Your task to perform on an android device: visit the assistant section in the google photos Image 0: 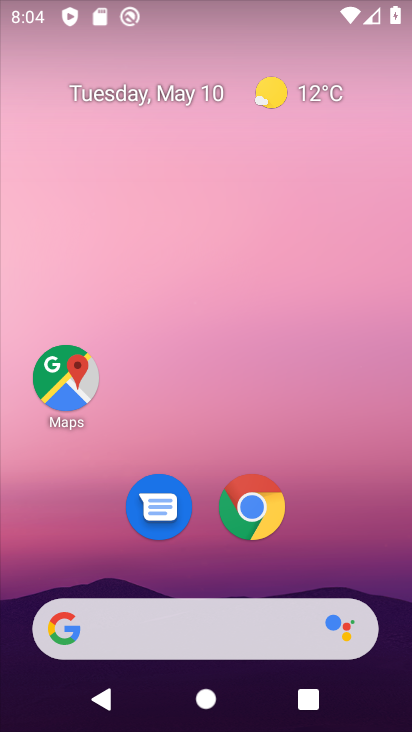
Step 0: drag from (126, 588) to (247, 132)
Your task to perform on an android device: visit the assistant section in the google photos Image 1: 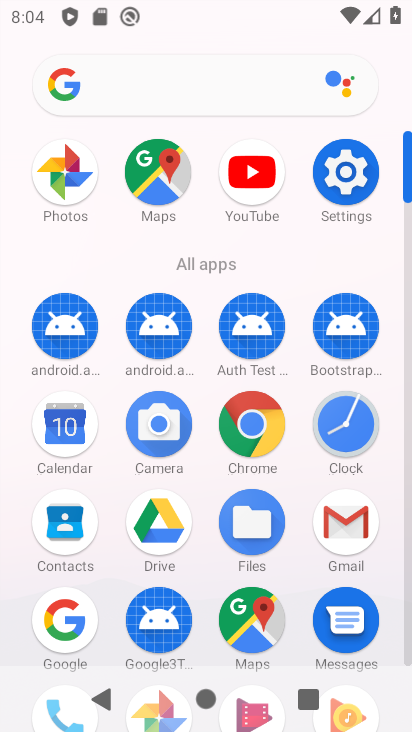
Step 1: drag from (180, 635) to (228, 434)
Your task to perform on an android device: visit the assistant section in the google photos Image 2: 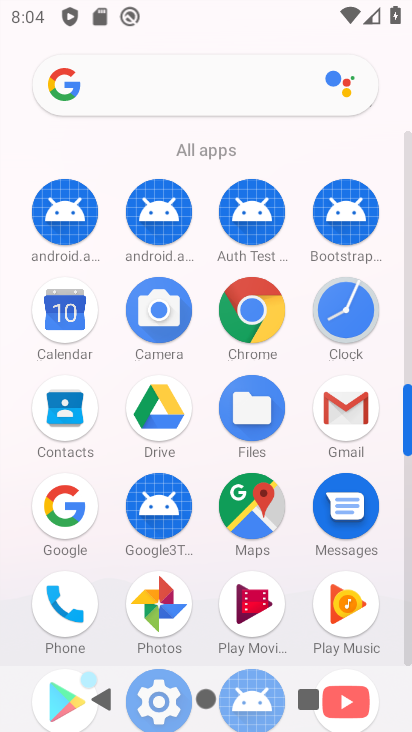
Step 2: drag from (191, 628) to (258, 395)
Your task to perform on an android device: visit the assistant section in the google photos Image 3: 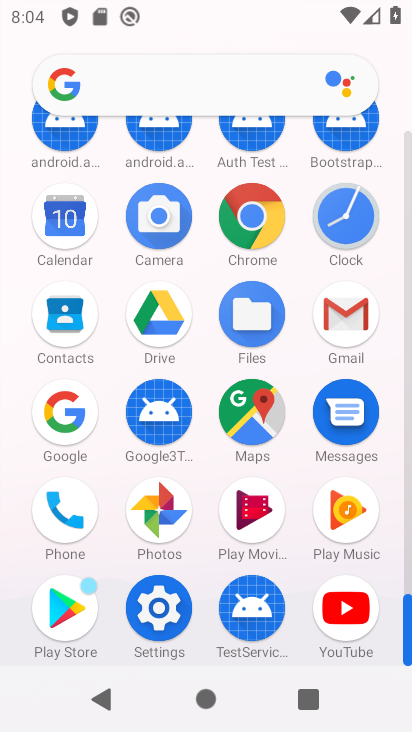
Step 3: click (141, 519)
Your task to perform on an android device: visit the assistant section in the google photos Image 4: 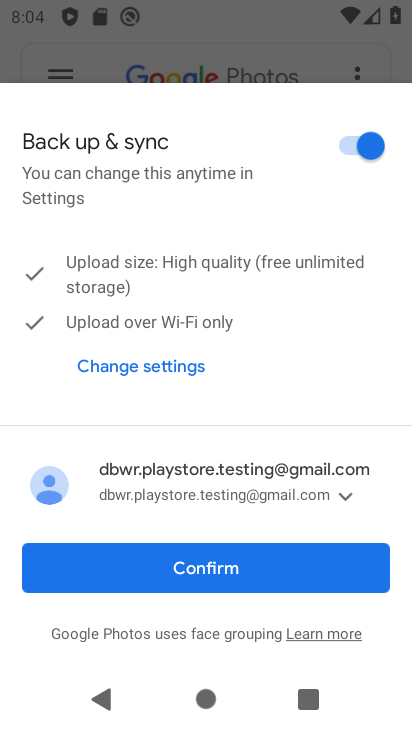
Step 4: click (219, 574)
Your task to perform on an android device: visit the assistant section in the google photos Image 5: 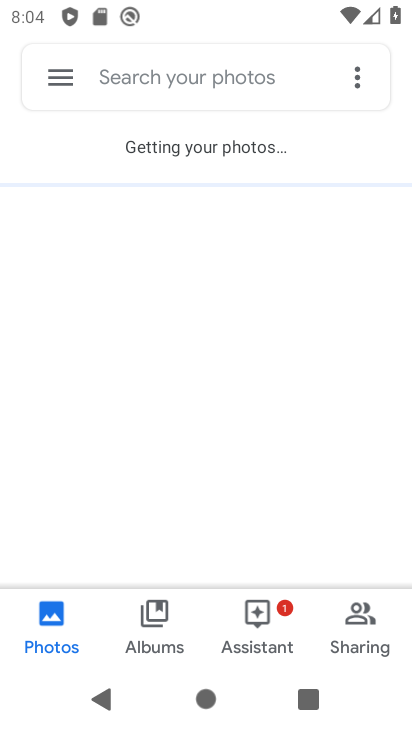
Step 5: click (266, 625)
Your task to perform on an android device: visit the assistant section in the google photos Image 6: 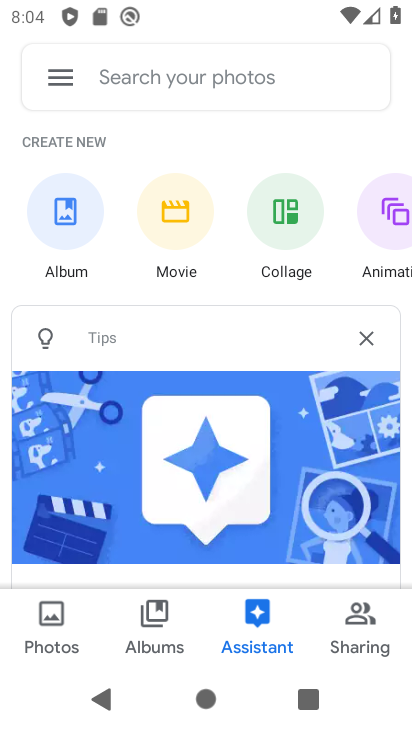
Step 6: task complete